Your task to perform on an android device: turn on the 12-hour format for clock Image 0: 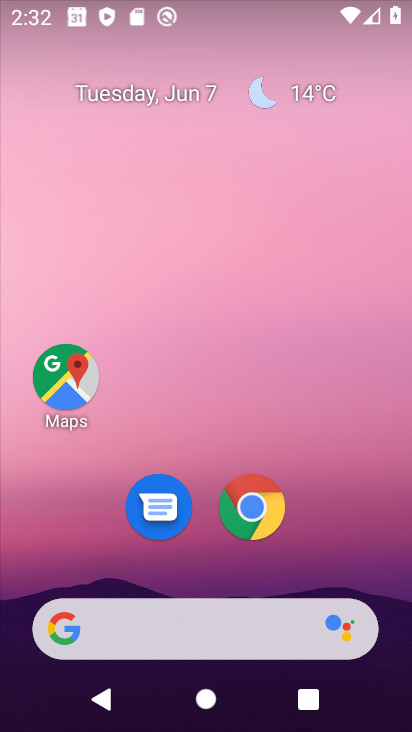
Step 0: drag from (305, 511) to (317, 111)
Your task to perform on an android device: turn on the 12-hour format for clock Image 1: 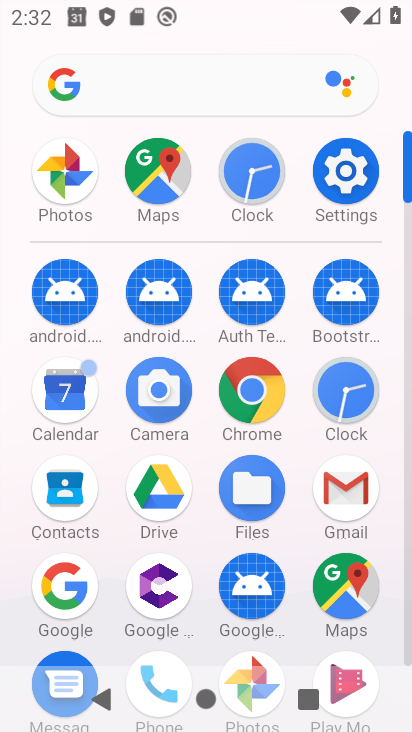
Step 1: click (256, 179)
Your task to perform on an android device: turn on the 12-hour format for clock Image 2: 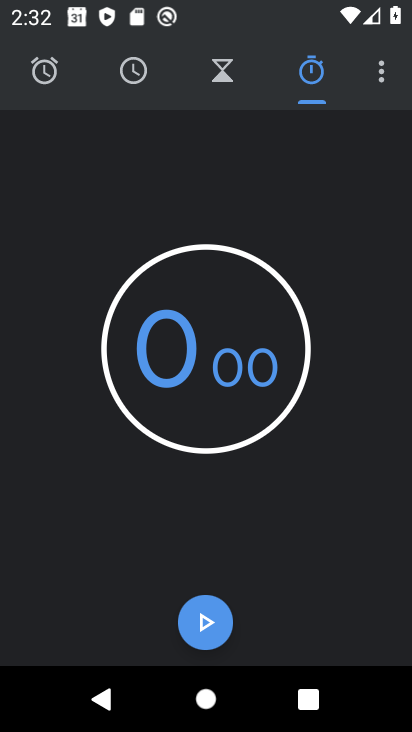
Step 2: click (374, 68)
Your task to perform on an android device: turn on the 12-hour format for clock Image 3: 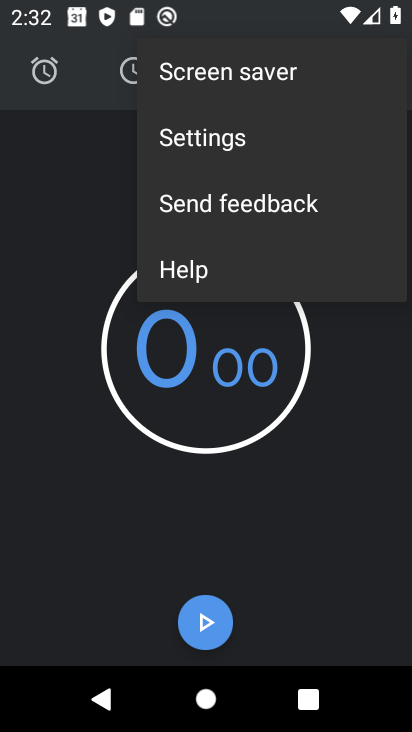
Step 3: click (235, 153)
Your task to perform on an android device: turn on the 12-hour format for clock Image 4: 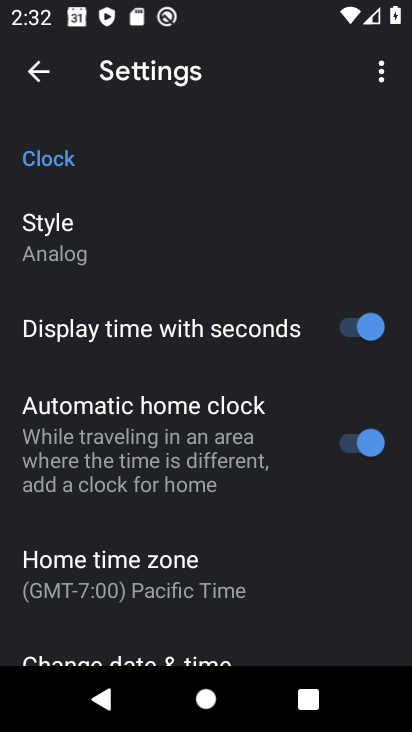
Step 4: drag from (188, 600) to (192, 254)
Your task to perform on an android device: turn on the 12-hour format for clock Image 5: 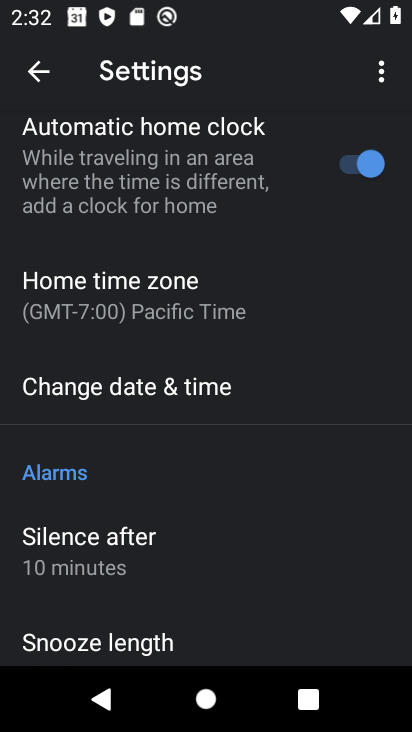
Step 5: click (159, 409)
Your task to perform on an android device: turn on the 12-hour format for clock Image 6: 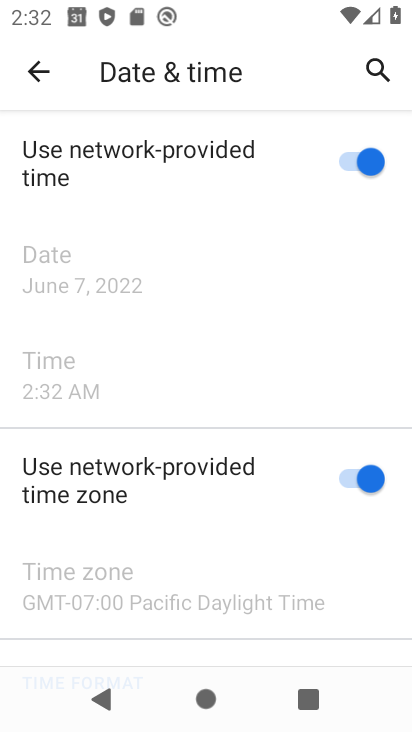
Step 6: task complete